Your task to perform on an android device: What's the weather? Image 0: 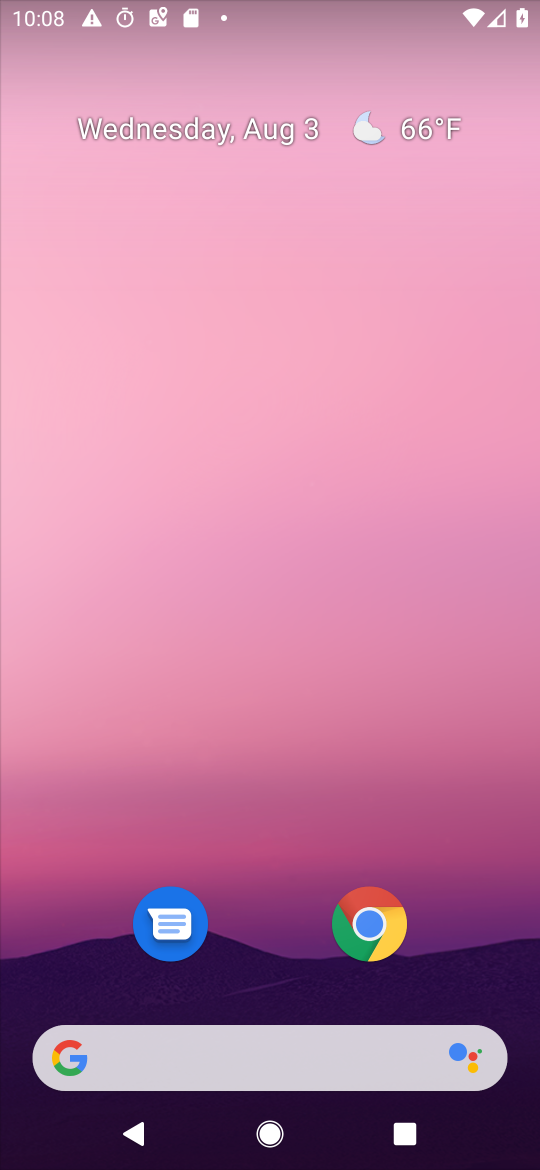
Step 0: click (428, 120)
Your task to perform on an android device: What's the weather? Image 1: 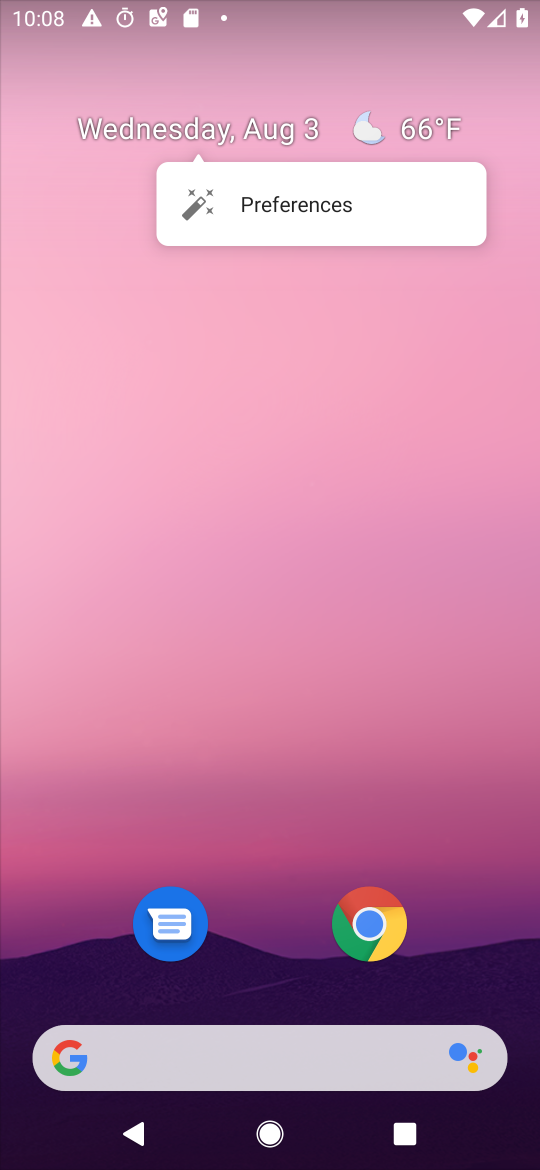
Step 1: click (407, 128)
Your task to perform on an android device: What's the weather? Image 2: 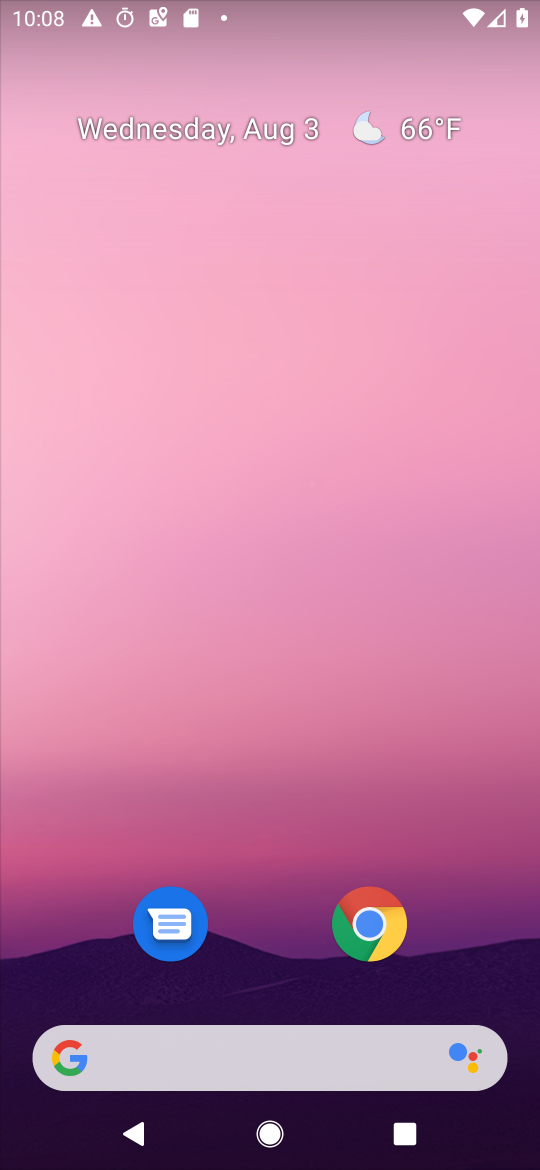
Step 2: click (361, 129)
Your task to perform on an android device: What's the weather? Image 3: 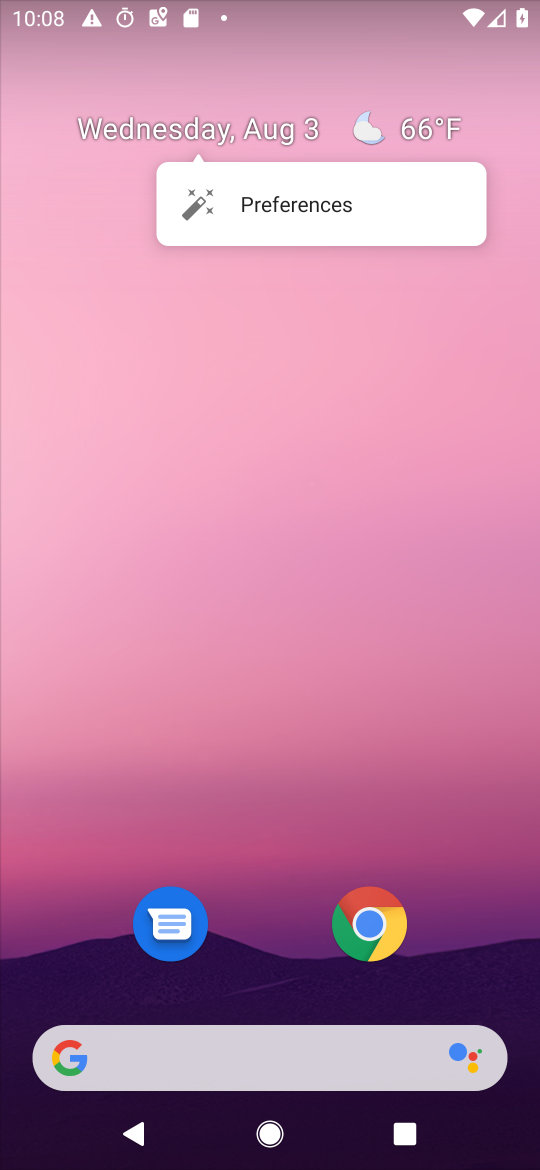
Step 3: click (373, 118)
Your task to perform on an android device: What's the weather? Image 4: 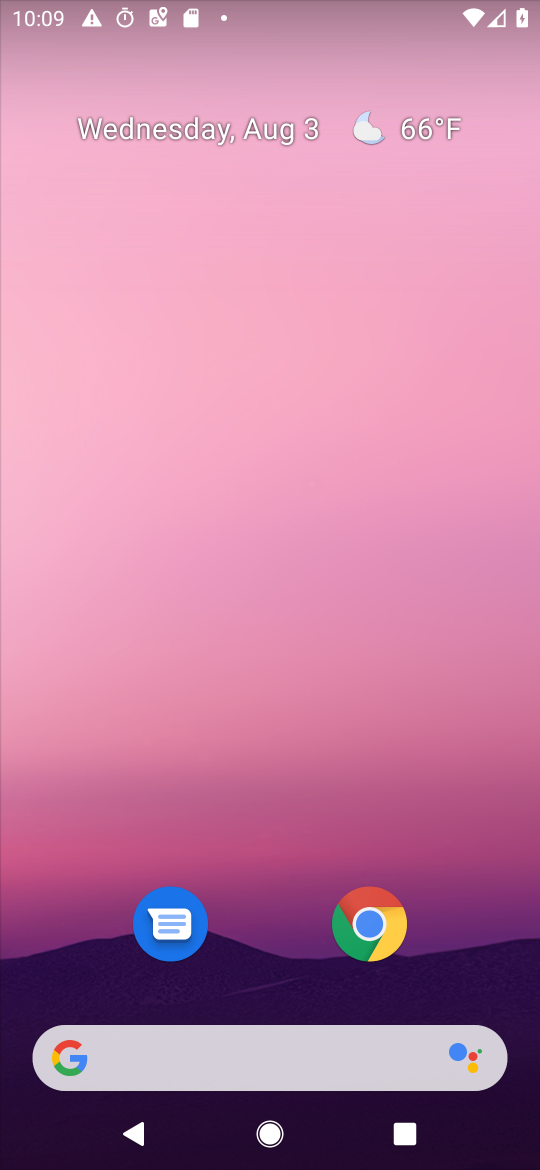
Step 4: click (169, 1047)
Your task to perform on an android device: What's the weather? Image 5: 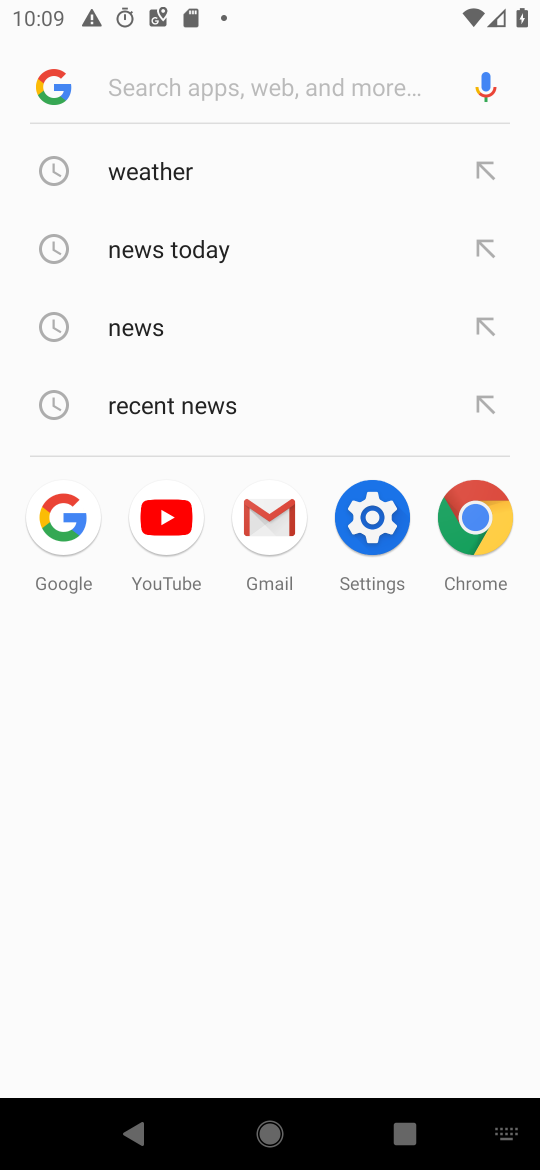
Step 5: click (198, 172)
Your task to perform on an android device: What's the weather? Image 6: 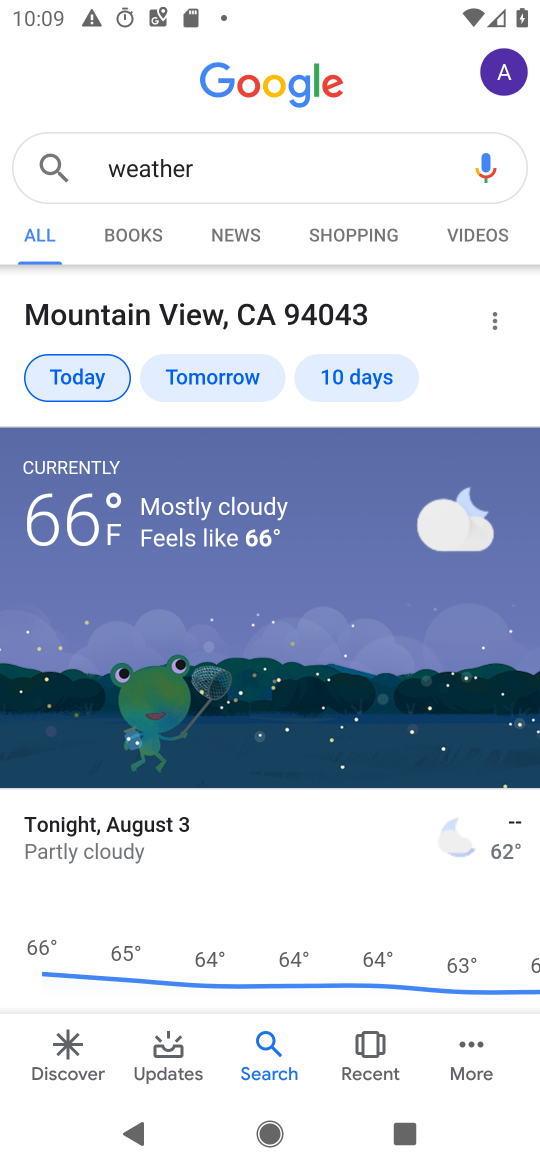
Step 6: task complete